Your task to perform on an android device: Show me popular games on the Play Store Image 0: 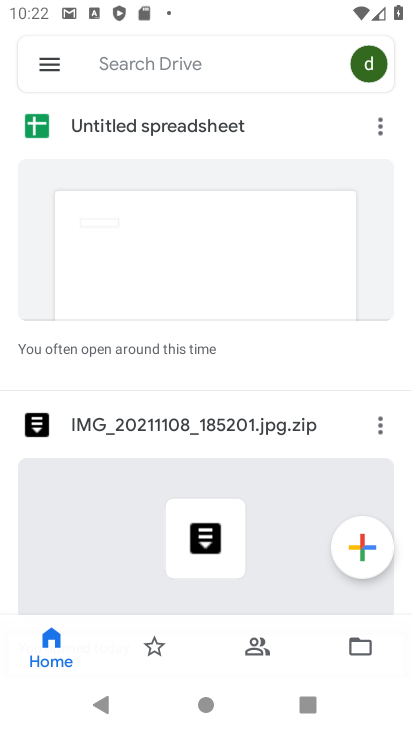
Step 0: press home button
Your task to perform on an android device: Show me popular games on the Play Store Image 1: 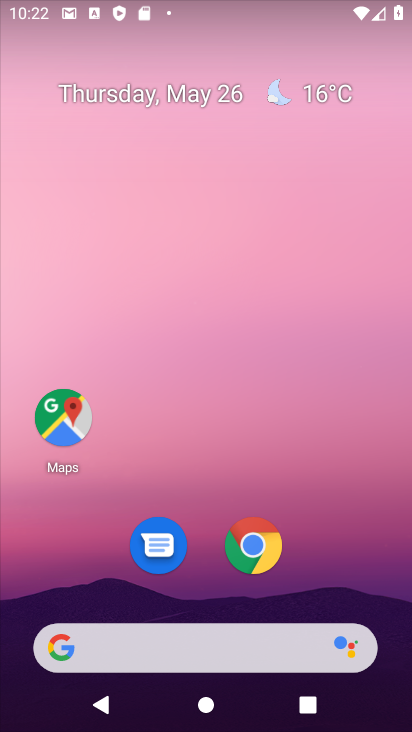
Step 1: drag from (313, 610) to (380, 176)
Your task to perform on an android device: Show me popular games on the Play Store Image 2: 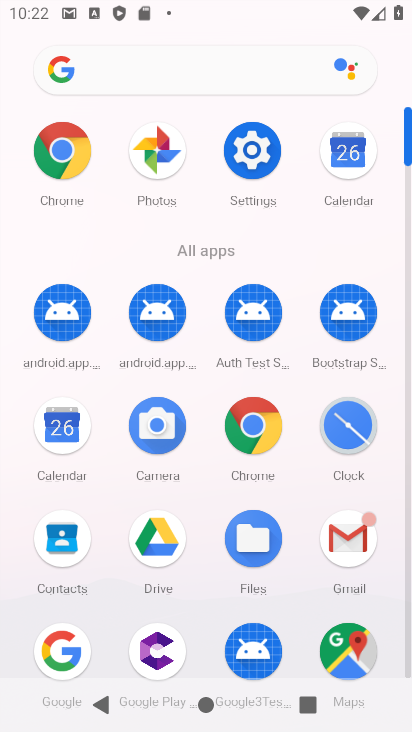
Step 2: drag from (278, 600) to (346, 147)
Your task to perform on an android device: Show me popular games on the Play Store Image 3: 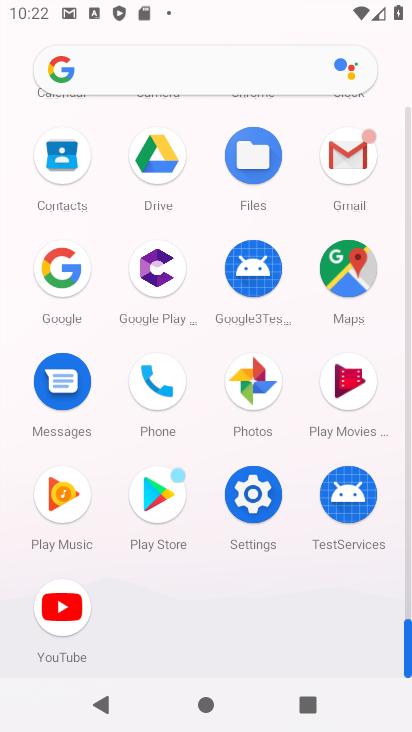
Step 3: click (142, 498)
Your task to perform on an android device: Show me popular games on the Play Store Image 4: 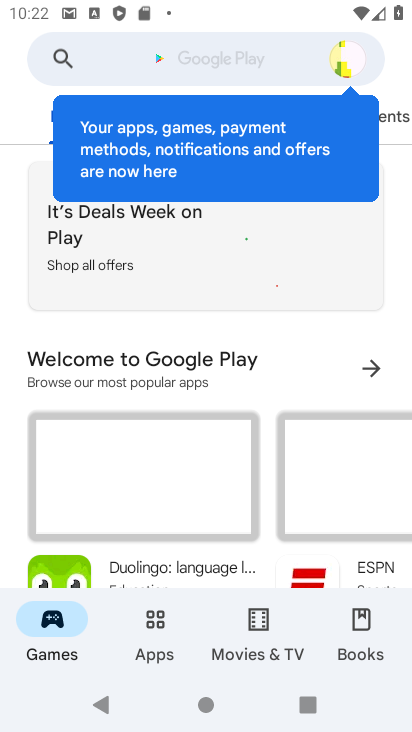
Step 4: click (46, 633)
Your task to perform on an android device: Show me popular games on the Play Store Image 5: 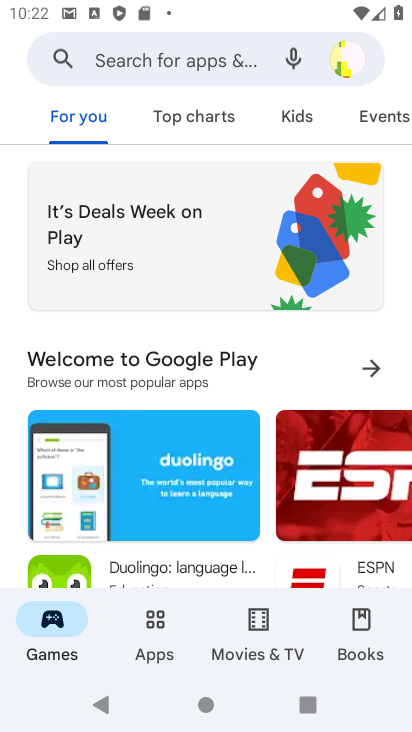
Step 5: drag from (390, 125) to (113, 136)
Your task to perform on an android device: Show me popular games on the Play Store Image 6: 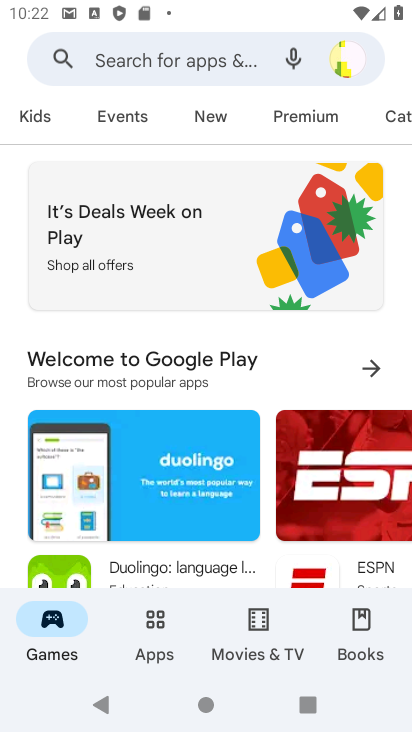
Step 6: click (404, 120)
Your task to perform on an android device: Show me popular games on the Play Store Image 7: 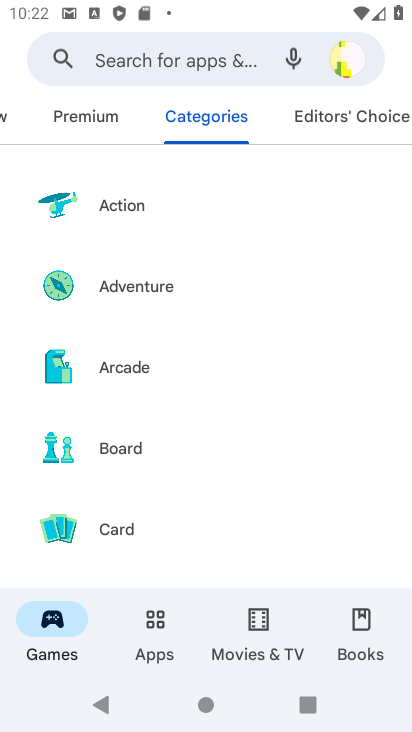
Step 7: task complete